Your task to perform on an android device: turn on sleep mode Image 0: 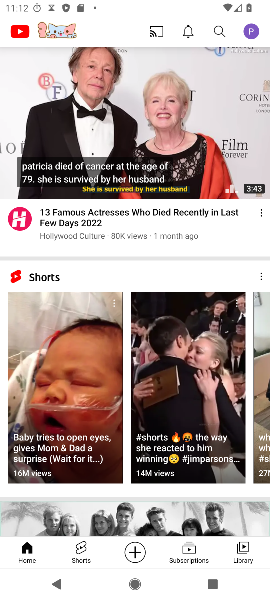
Step 0: press home button
Your task to perform on an android device: turn on sleep mode Image 1: 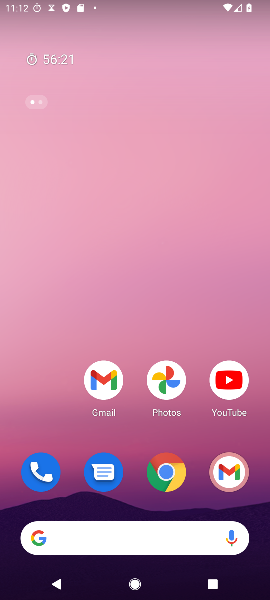
Step 1: drag from (196, 351) to (215, 1)
Your task to perform on an android device: turn on sleep mode Image 2: 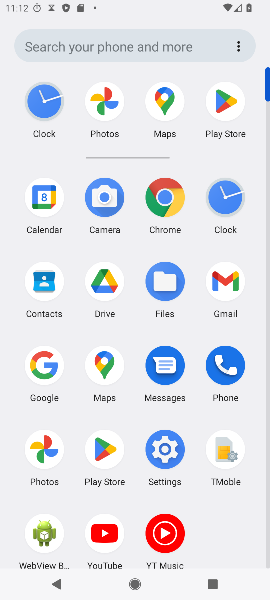
Step 2: click (176, 457)
Your task to perform on an android device: turn on sleep mode Image 3: 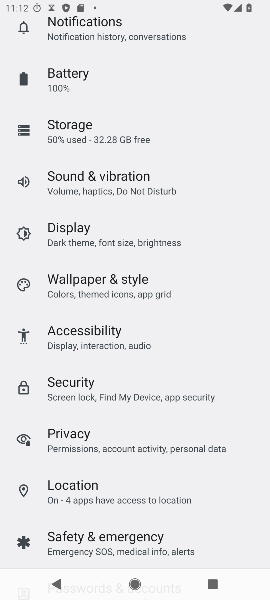
Step 3: click (113, 229)
Your task to perform on an android device: turn on sleep mode Image 4: 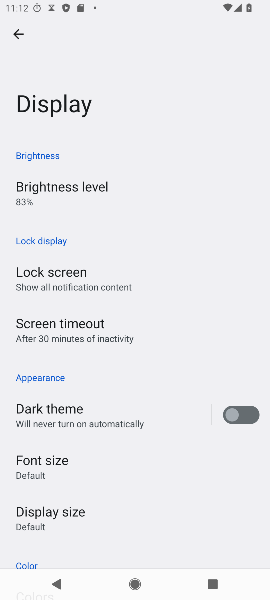
Step 4: task complete